Your task to perform on an android device: Check the news Image 0: 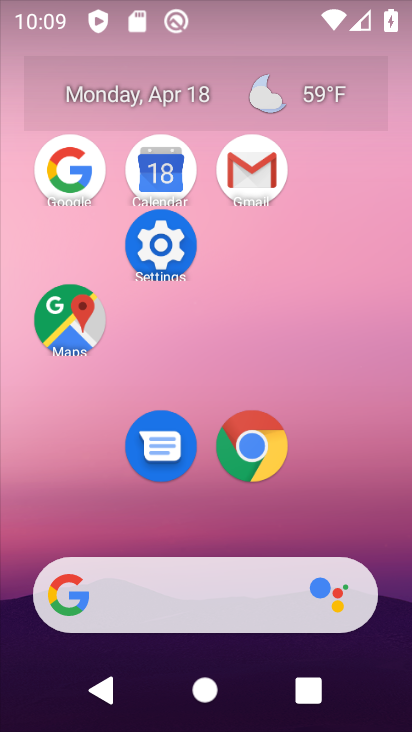
Step 0: click (75, 165)
Your task to perform on an android device: Check the news Image 1: 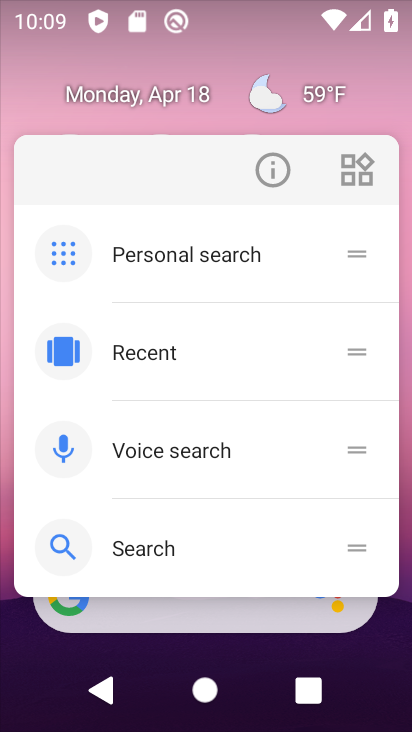
Step 1: press back button
Your task to perform on an android device: Check the news Image 2: 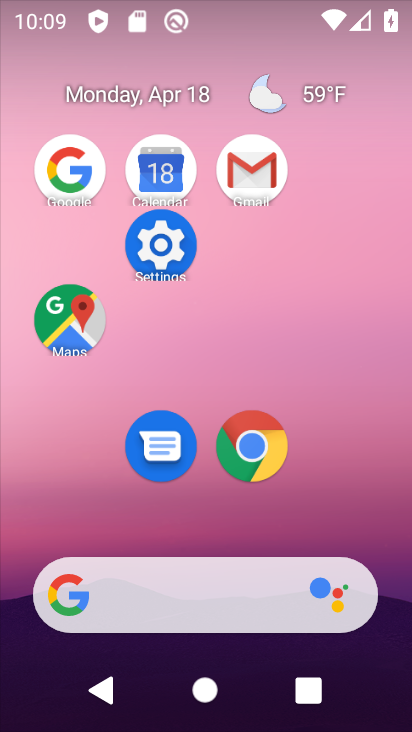
Step 2: click (74, 169)
Your task to perform on an android device: Check the news Image 3: 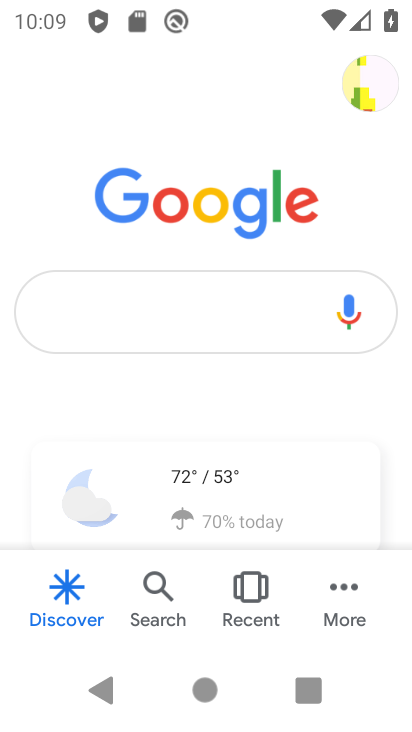
Step 3: click (101, 286)
Your task to perform on an android device: Check the news Image 4: 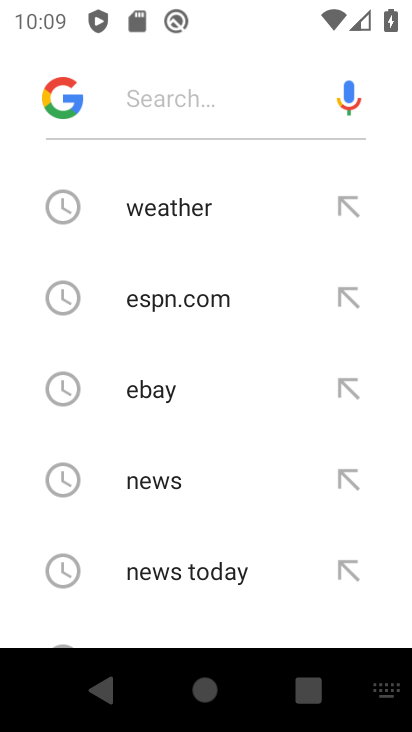
Step 4: click (182, 552)
Your task to perform on an android device: Check the news Image 5: 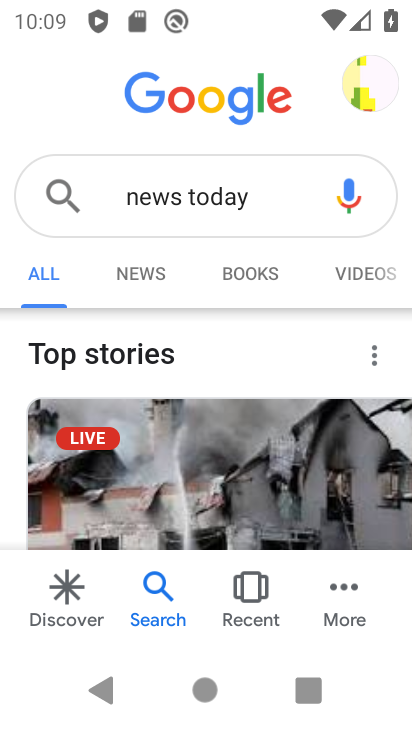
Step 5: task complete